Your task to perform on an android device: Go to ESPN.com Image 0: 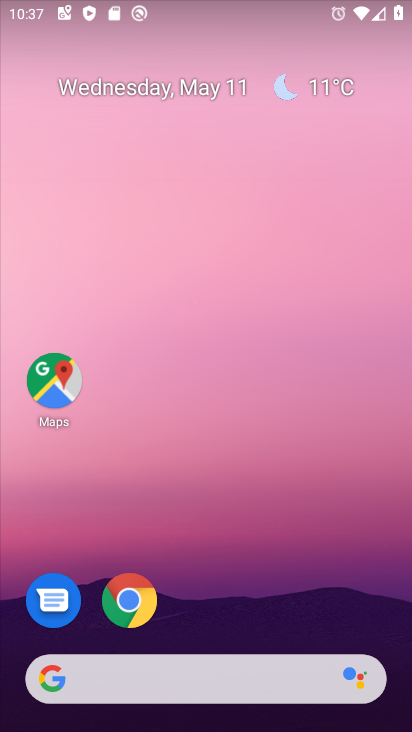
Step 0: click (107, 621)
Your task to perform on an android device: Go to ESPN.com Image 1: 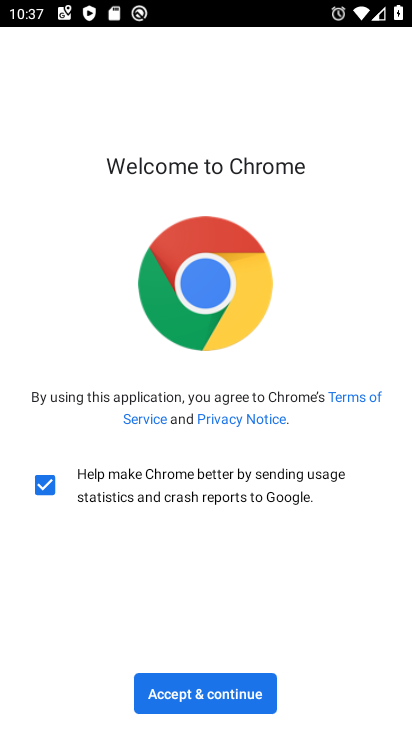
Step 1: click (190, 715)
Your task to perform on an android device: Go to ESPN.com Image 2: 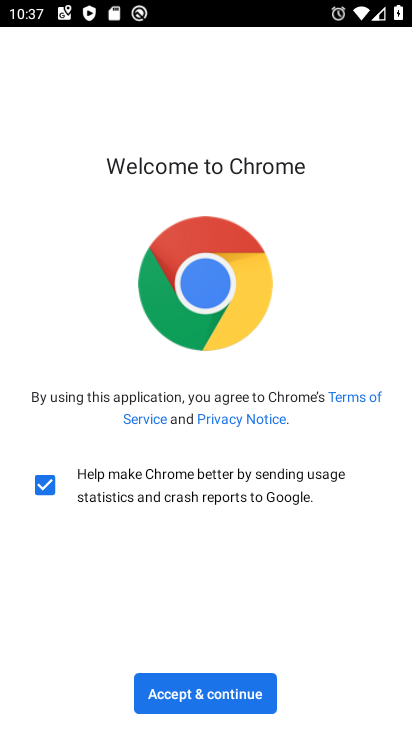
Step 2: click (190, 715)
Your task to perform on an android device: Go to ESPN.com Image 3: 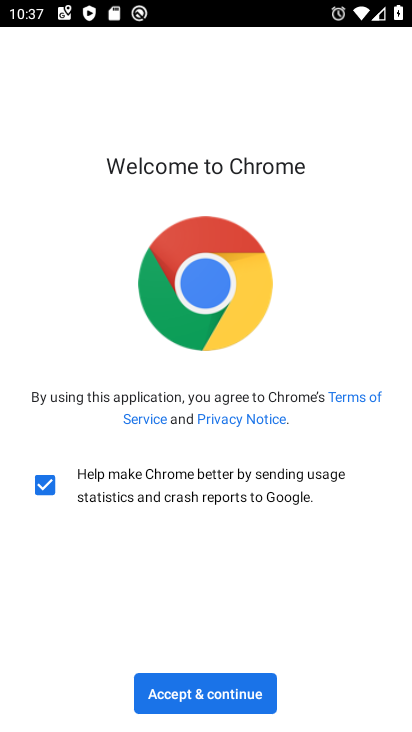
Step 3: click (196, 704)
Your task to perform on an android device: Go to ESPN.com Image 4: 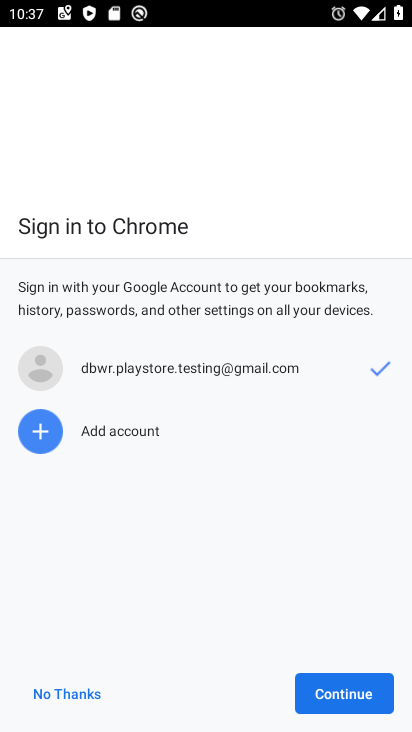
Step 4: click (314, 687)
Your task to perform on an android device: Go to ESPN.com Image 5: 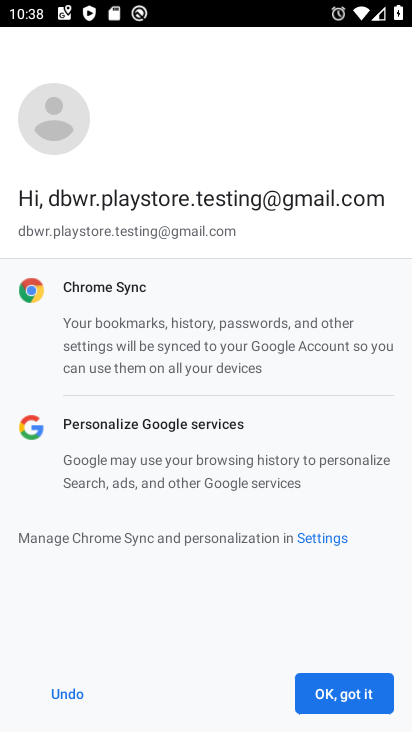
Step 5: click (347, 699)
Your task to perform on an android device: Go to ESPN.com Image 6: 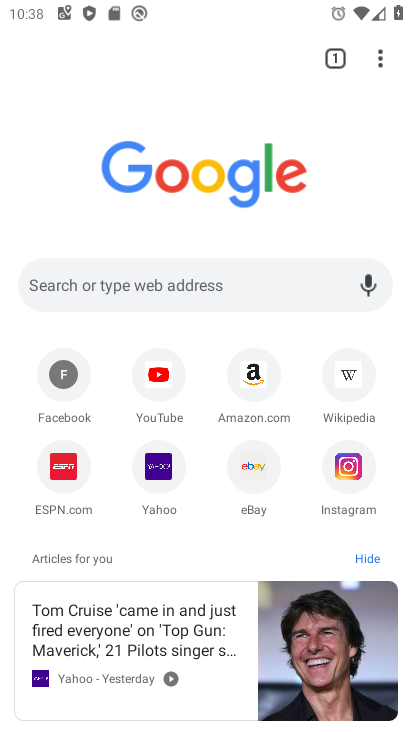
Step 6: click (71, 458)
Your task to perform on an android device: Go to ESPN.com Image 7: 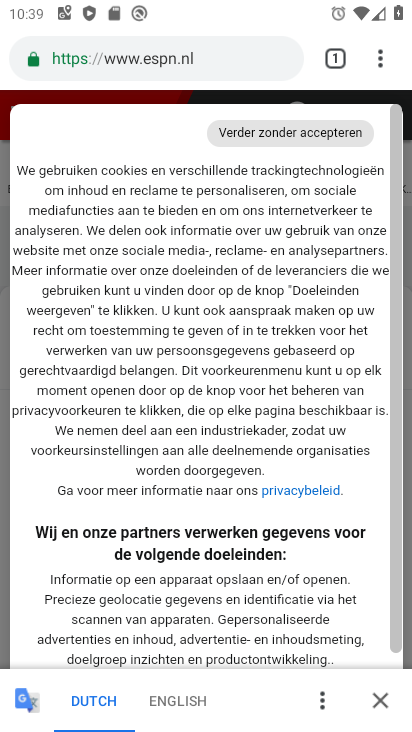
Step 7: task complete